Your task to perform on an android device: star an email in the gmail app Image 0: 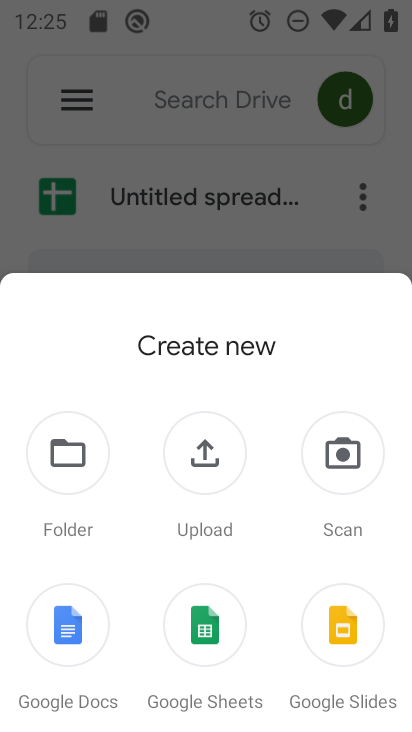
Step 0: press home button
Your task to perform on an android device: star an email in the gmail app Image 1: 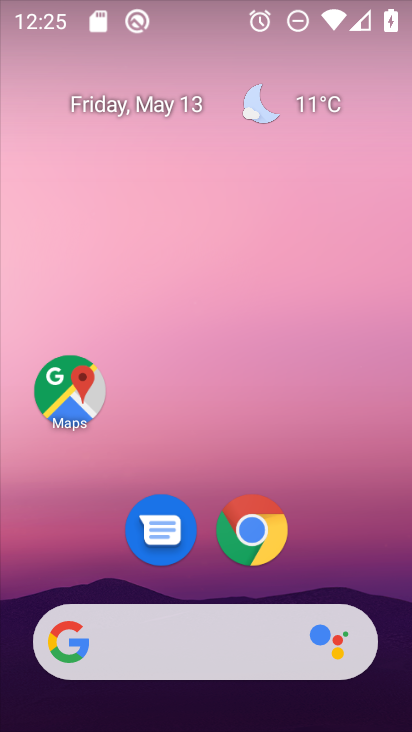
Step 1: drag from (265, 354) to (304, 263)
Your task to perform on an android device: star an email in the gmail app Image 2: 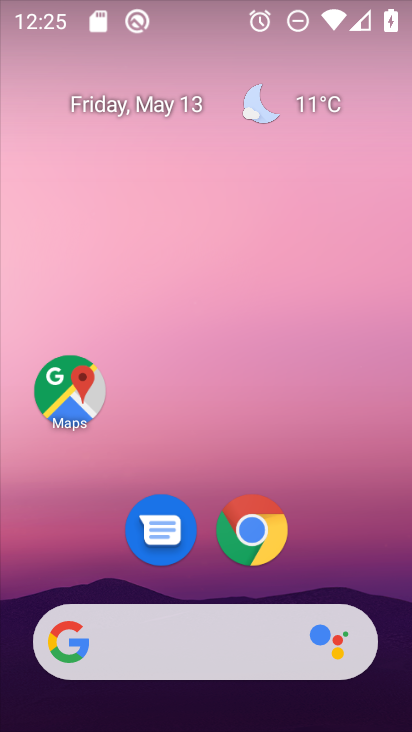
Step 2: drag from (189, 612) to (307, 258)
Your task to perform on an android device: star an email in the gmail app Image 3: 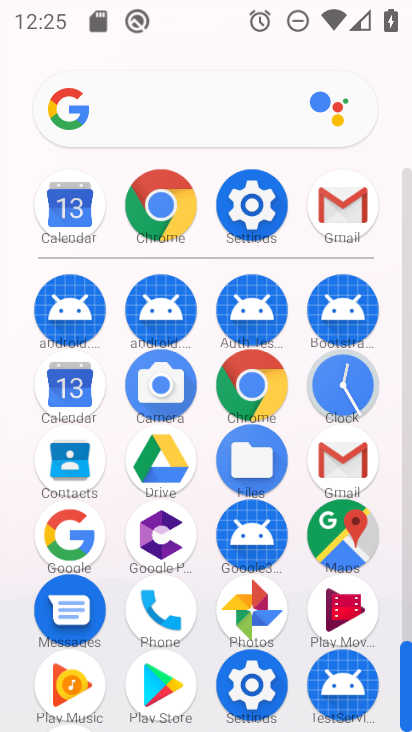
Step 3: click (347, 224)
Your task to perform on an android device: star an email in the gmail app Image 4: 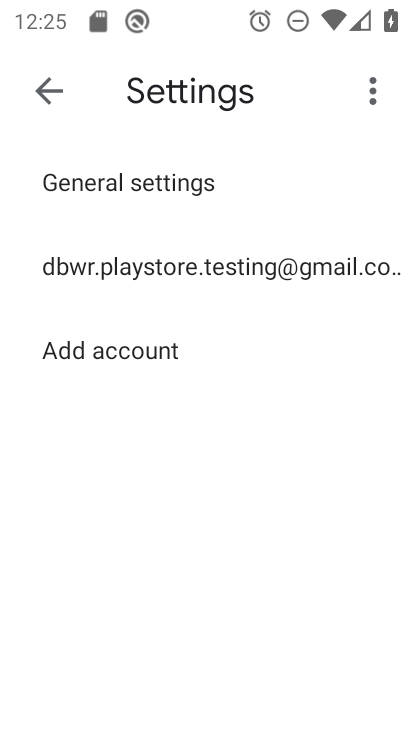
Step 4: click (49, 102)
Your task to perform on an android device: star an email in the gmail app Image 5: 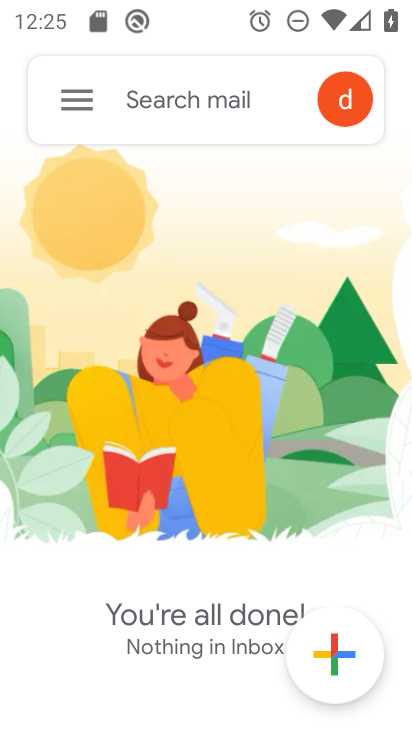
Step 5: task complete